Your task to perform on an android device: toggle pop-ups in chrome Image 0: 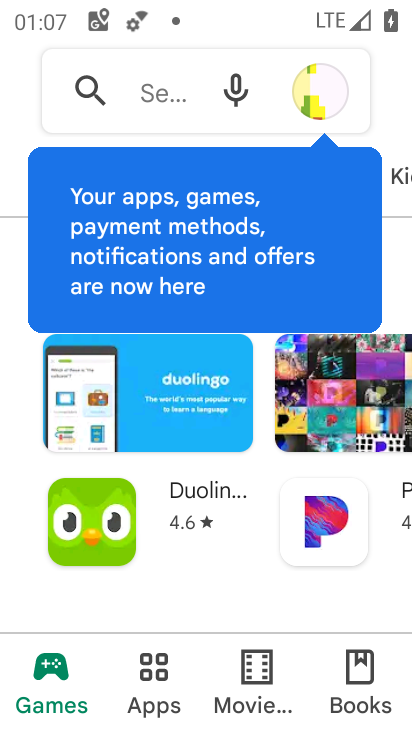
Step 0: press home button
Your task to perform on an android device: toggle pop-ups in chrome Image 1: 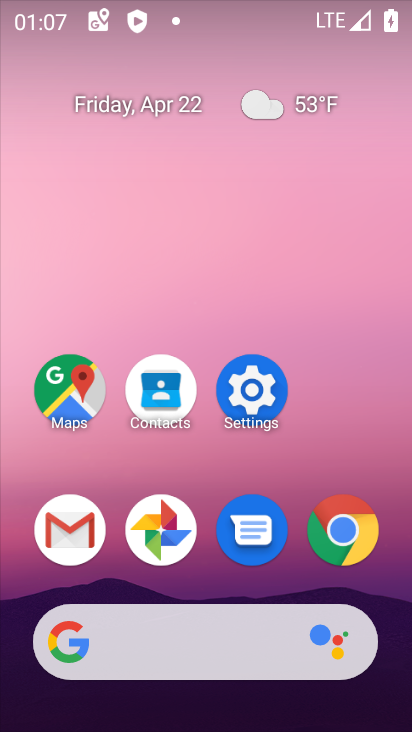
Step 1: click (344, 538)
Your task to perform on an android device: toggle pop-ups in chrome Image 2: 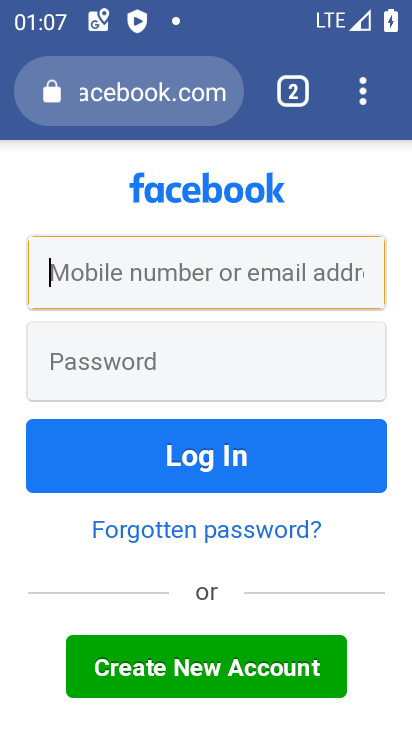
Step 2: click (360, 90)
Your task to perform on an android device: toggle pop-ups in chrome Image 3: 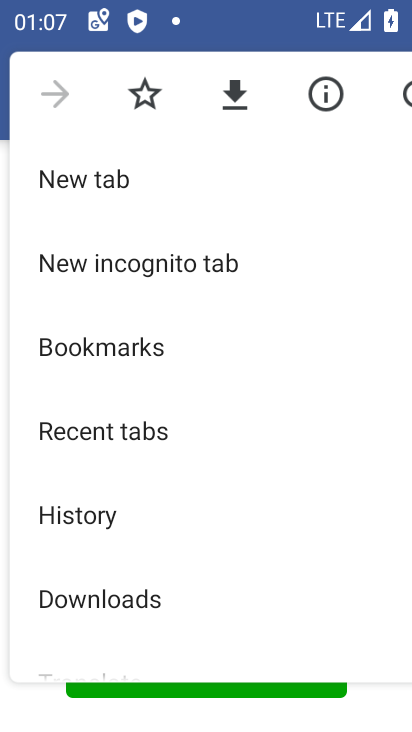
Step 3: drag from (255, 479) to (243, 132)
Your task to perform on an android device: toggle pop-ups in chrome Image 4: 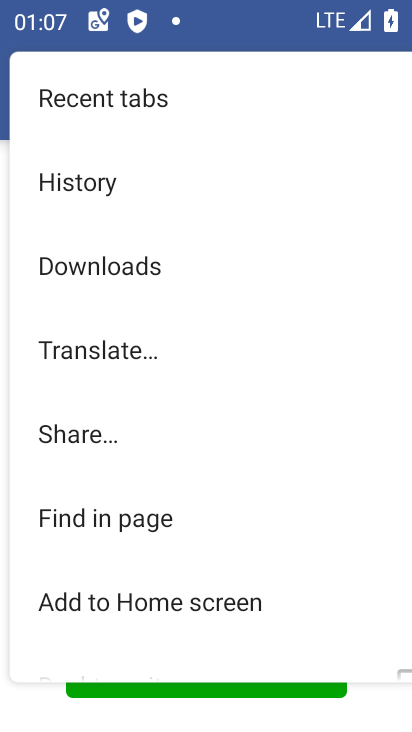
Step 4: drag from (226, 545) to (232, 2)
Your task to perform on an android device: toggle pop-ups in chrome Image 5: 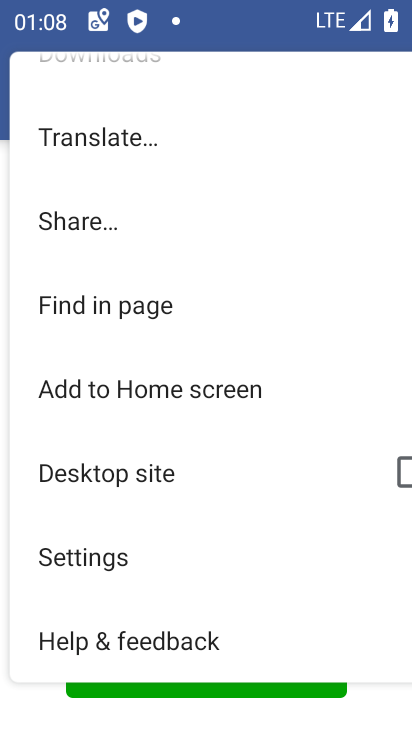
Step 5: click (89, 555)
Your task to perform on an android device: toggle pop-ups in chrome Image 6: 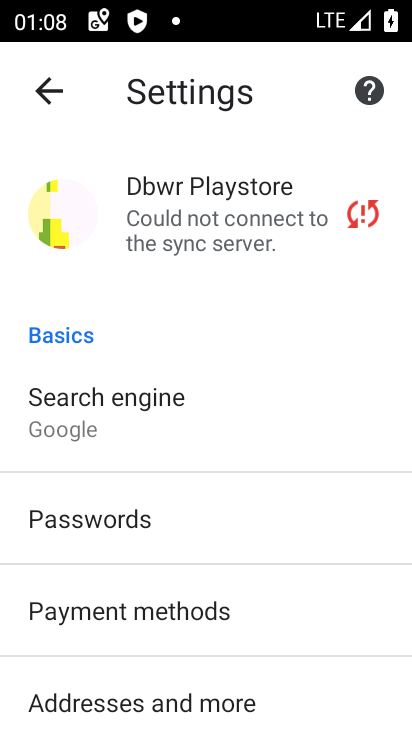
Step 6: drag from (252, 589) to (237, 95)
Your task to perform on an android device: toggle pop-ups in chrome Image 7: 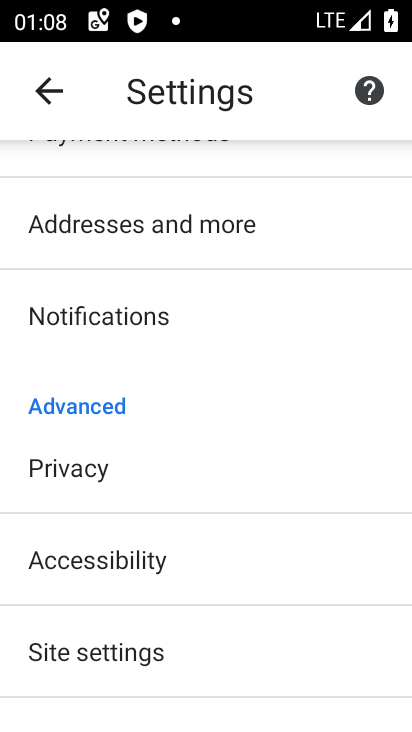
Step 7: drag from (220, 624) to (219, 105)
Your task to perform on an android device: toggle pop-ups in chrome Image 8: 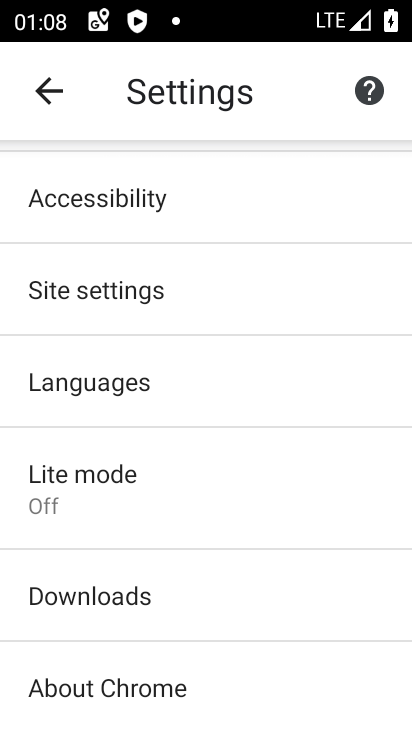
Step 8: click (112, 294)
Your task to perform on an android device: toggle pop-ups in chrome Image 9: 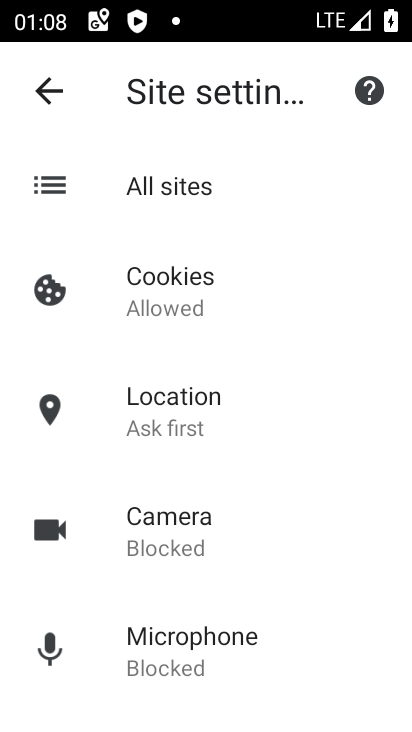
Step 9: drag from (254, 580) to (257, 137)
Your task to perform on an android device: toggle pop-ups in chrome Image 10: 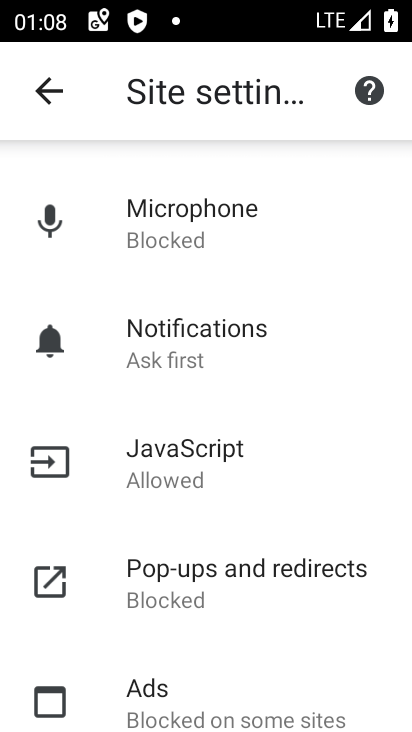
Step 10: click (195, 567)
Your task to perform on an android device: toggle pop-ups in chrome Image 11: 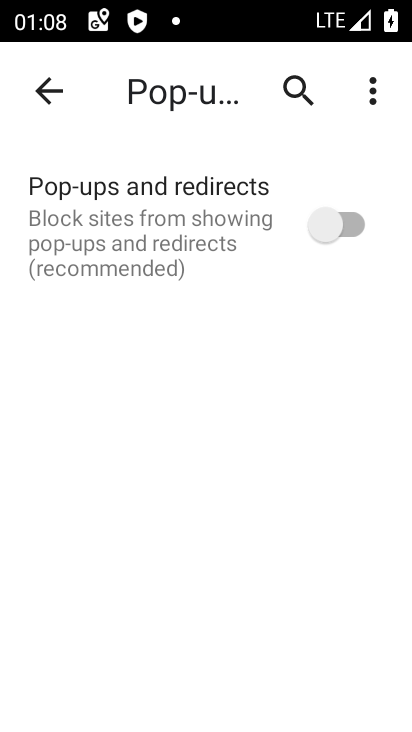
Step 11: click (321, 222)
Your task to perform on an android device: toggle pop-ups in chrome Image 12: 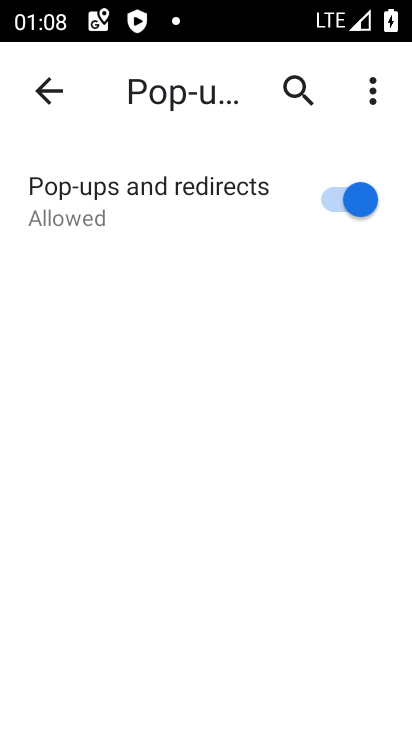
Step 12: task complete